Your task to perform on an android device: Open notification settings Image 0: 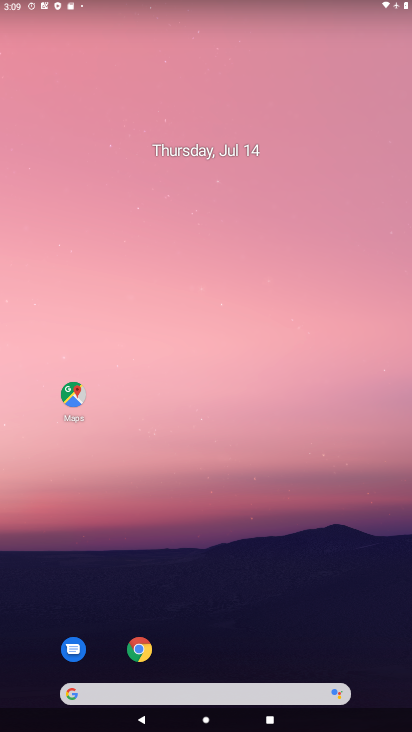
Step 0: drag from (187, 466) to (166, 17)
Your task to perform on an android device: Open notification settings Image 1: 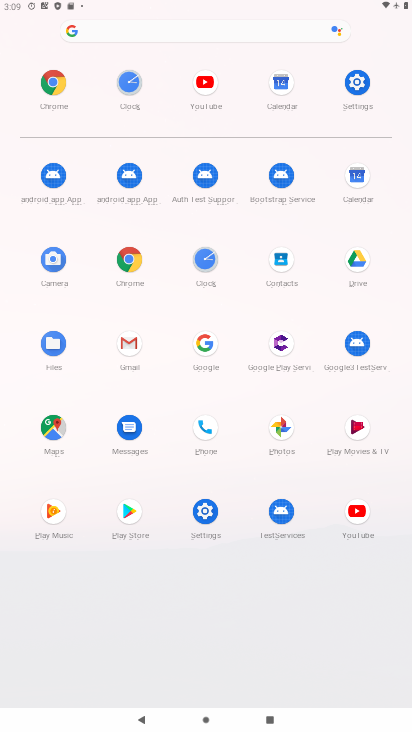
Step 1: click (201, 523)
Your task to perform on an android device: Open notification settings Image 2: 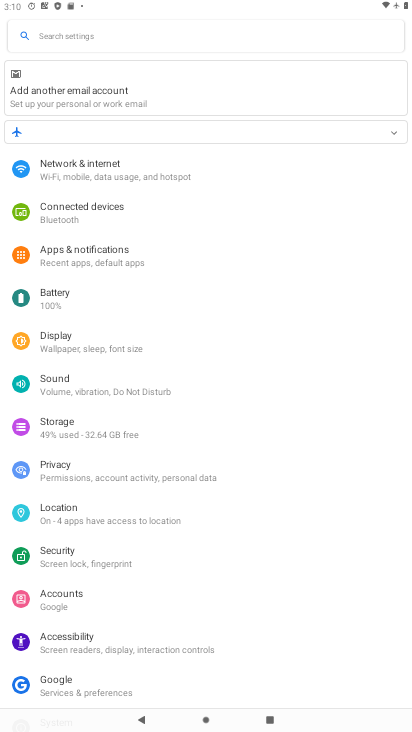
Step 2: click (119, 256)
Your task to perform on an android device: Open notification settings Image 3: 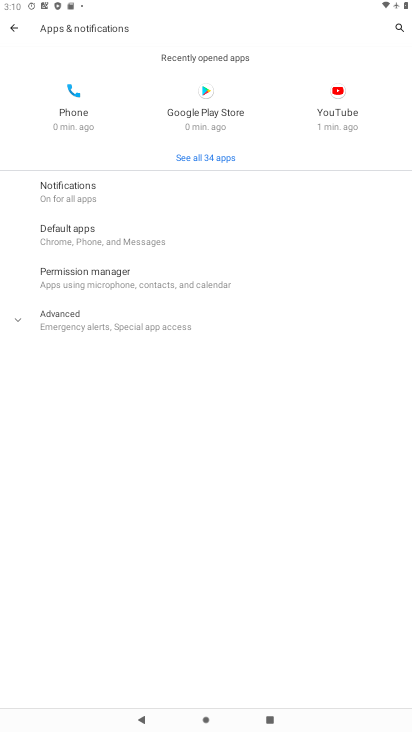
Step 3: click (84, 195)
Your task to perform on an android device: Open notification settings Image 4: 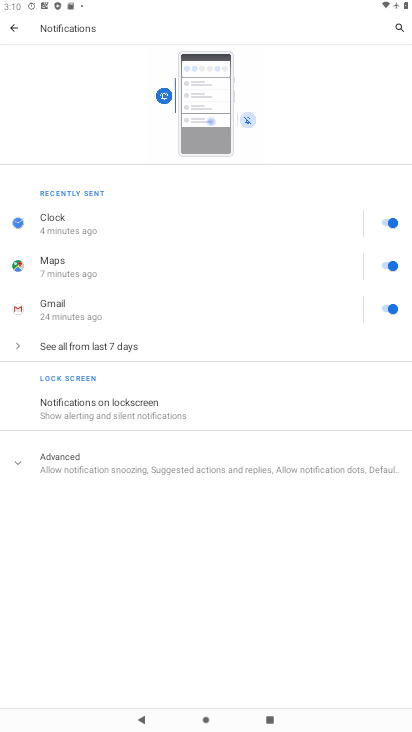
Step 4: task complete